Your task to perform on an android device: Add "corsair k70" to the cart on amazon.com, then select checkout. Image 0: 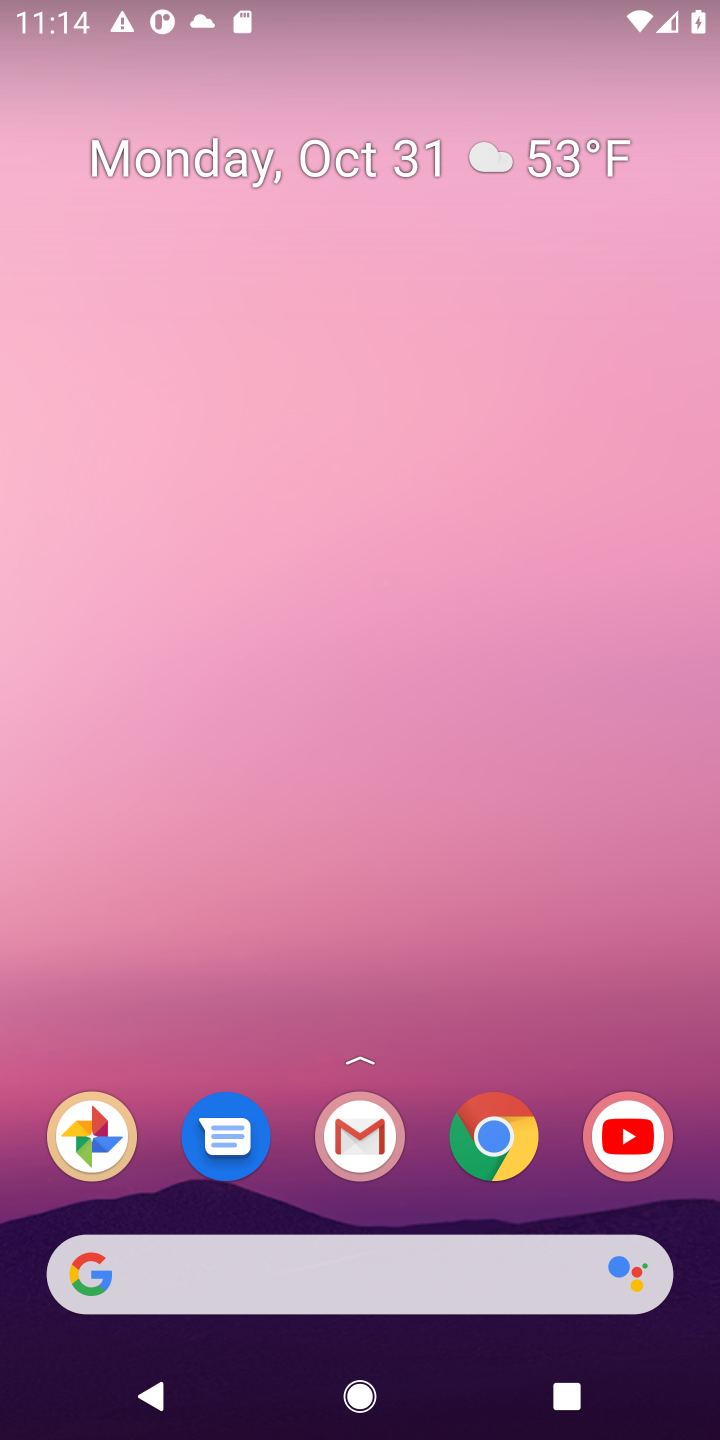
Step 0: press home button
Your task to perform on an android device: Add "corsair k70" to the cart on amazon.com, then select checkout. Image 1: 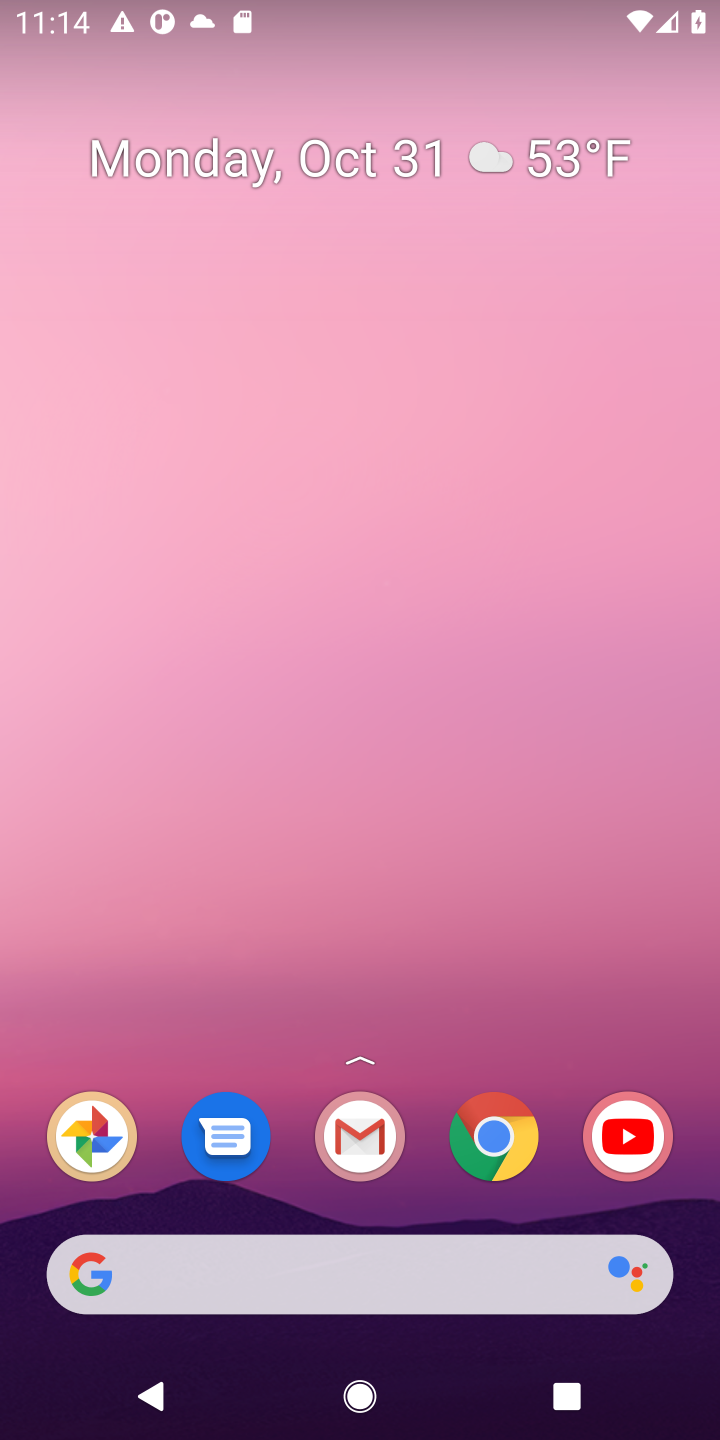
Step 1: click (144, 1263)
Your task to perform on an android device: Add "corsair k70" to the cart on amazon.com, then select checkout. Image 2: 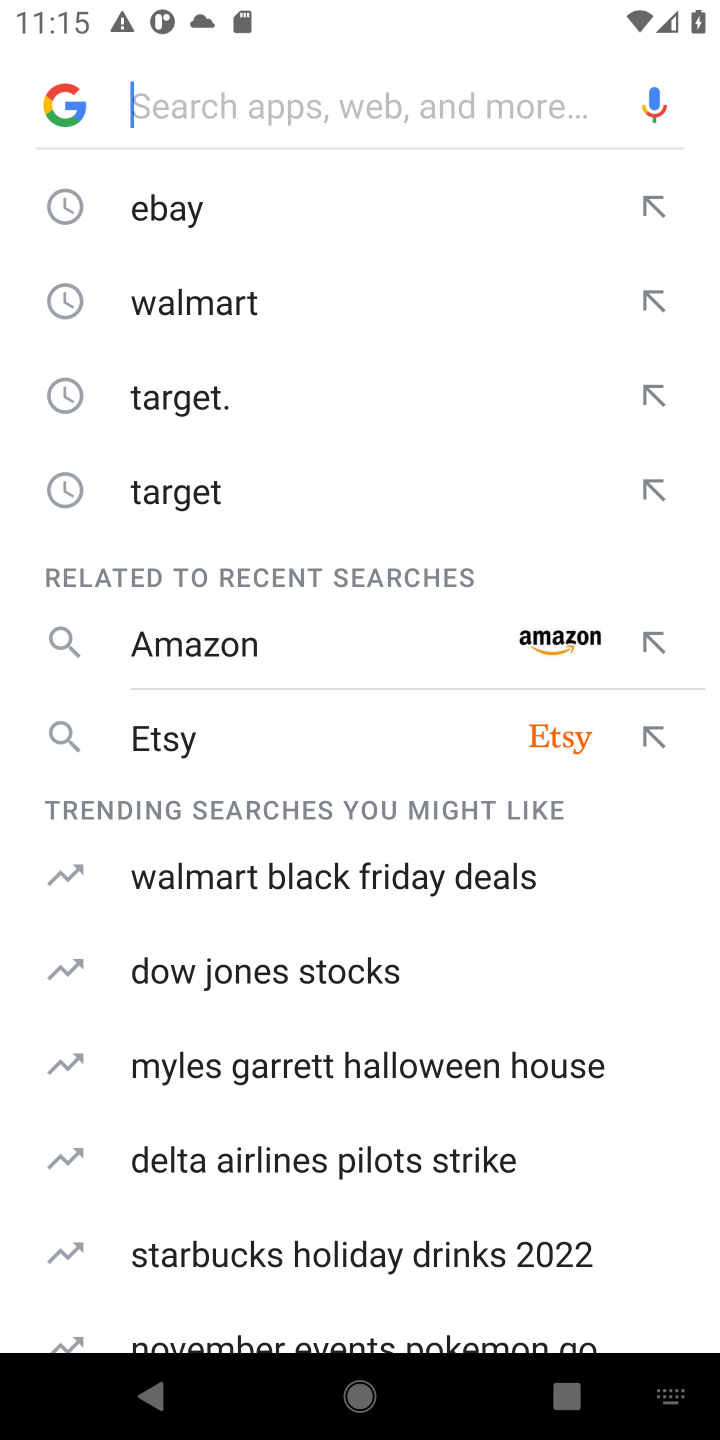
Step 2: type "amazon.com"
Your task to perform on an android device: Add "corsair k70" to the cart on amazon.com, then select checkout. Image 3: 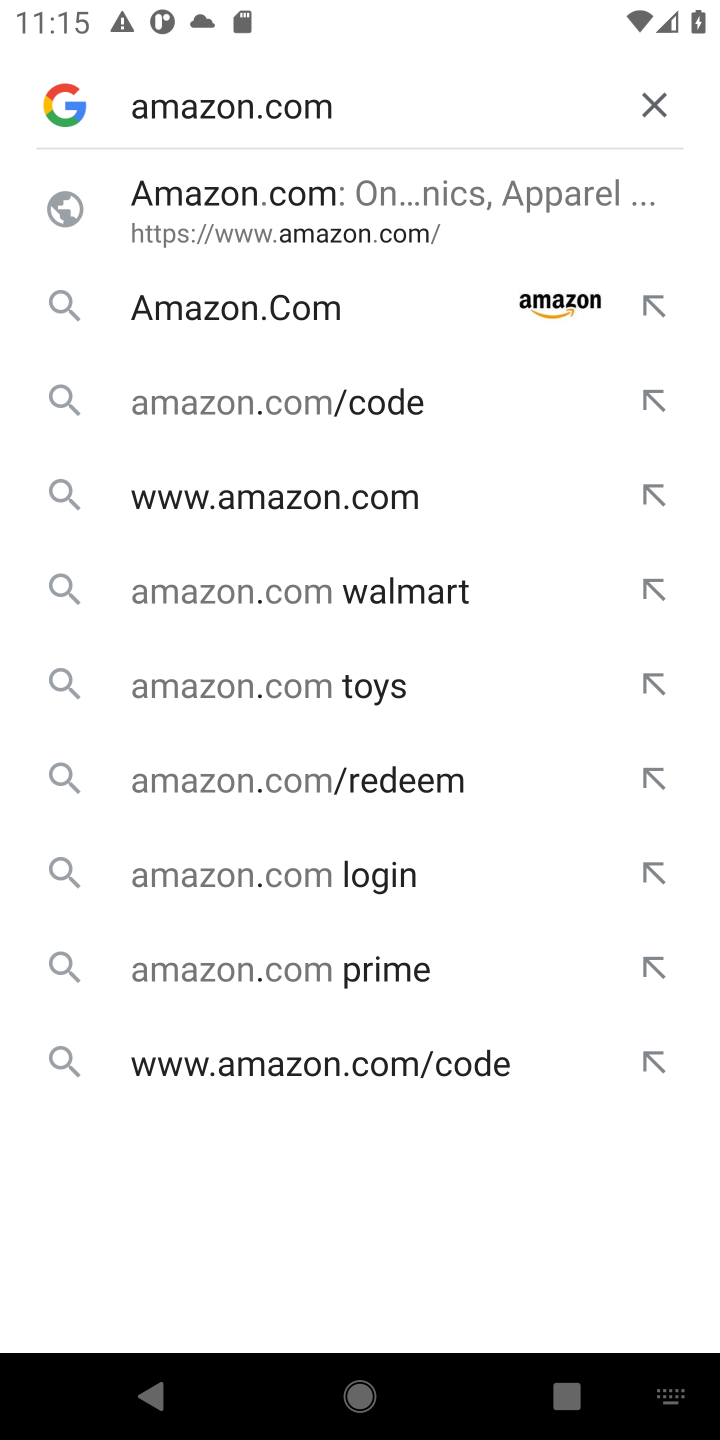
Step 3: press enter
Your task to perform on an android device: Add "corsair k70" to the cart on amazon.com, then select checkout. Image 4: 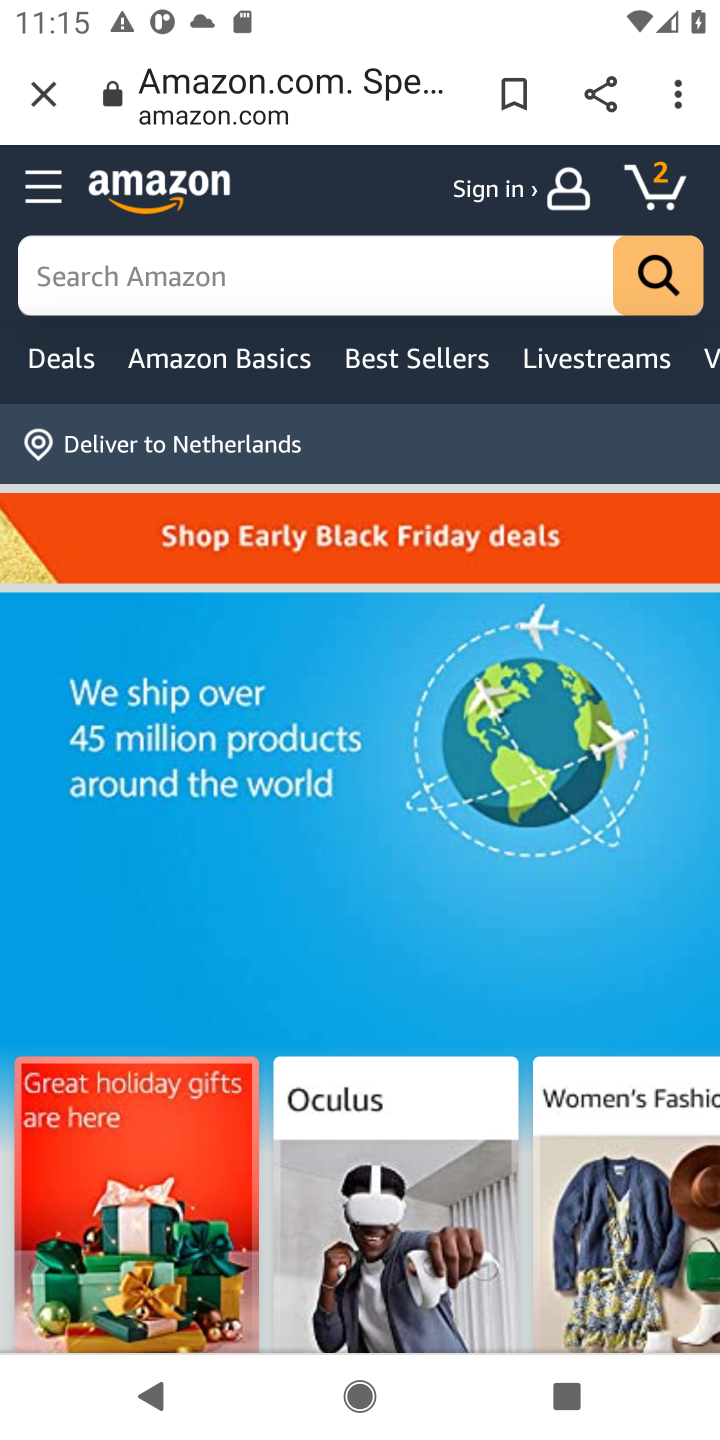
Step 4: click (146, 270)
Your task to perform on an android device: Add "corsair k70" to the cart on amazon.com, then select checkout. Image 5: 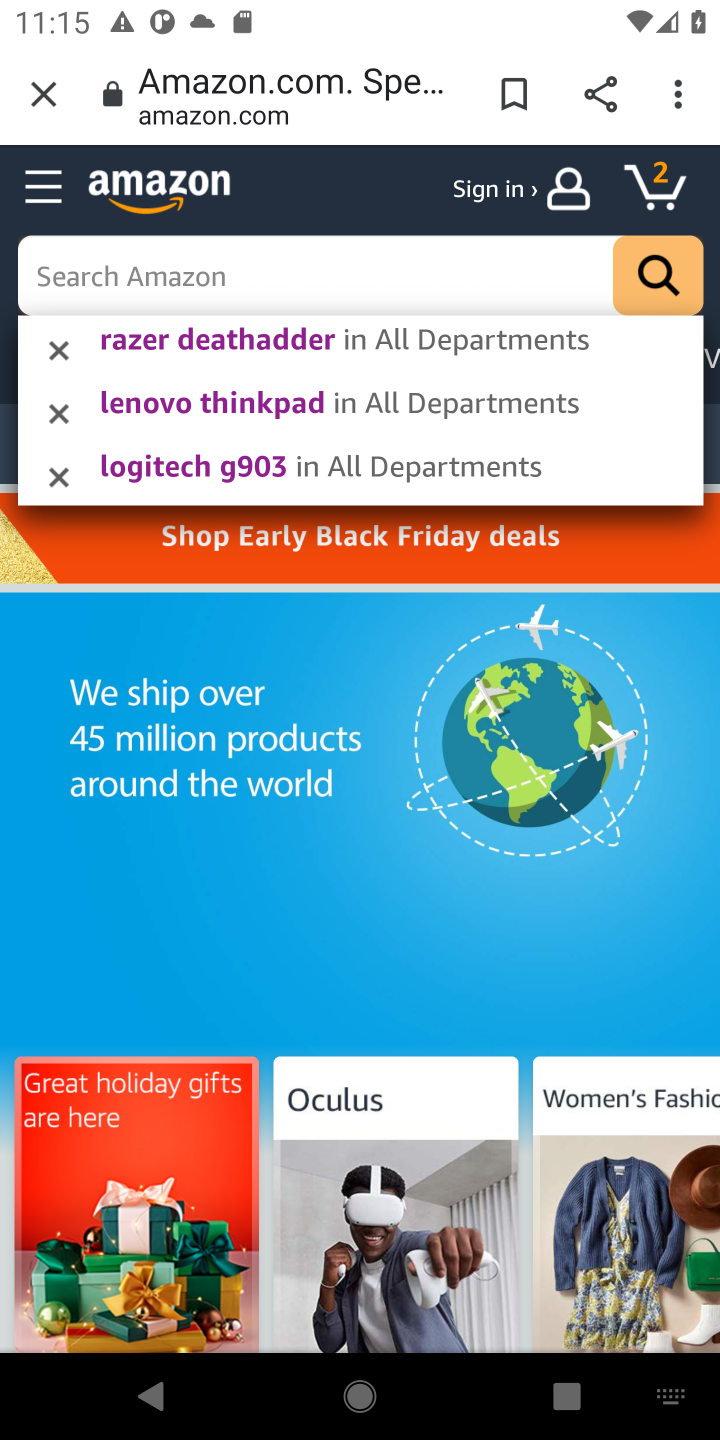
Step 5: type "corsair k70"
Your task to perform on an android device: Add "corsair k70" to the cart on amazon.com, then select checkout. Image 6: 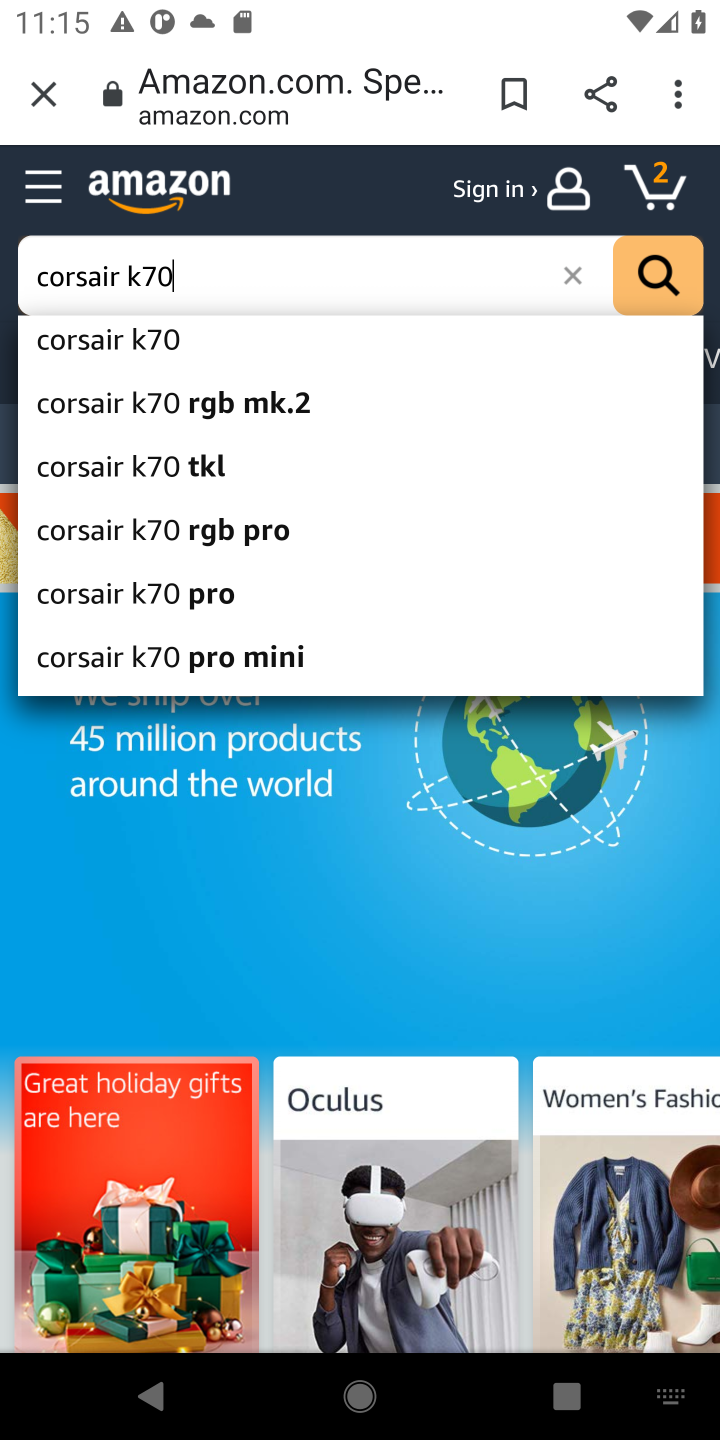
Step 6: click (665, 265)
Your task to perform on an android device: Add "corsair k70" to the cart on amazon.com, then select checkout. Image 7: 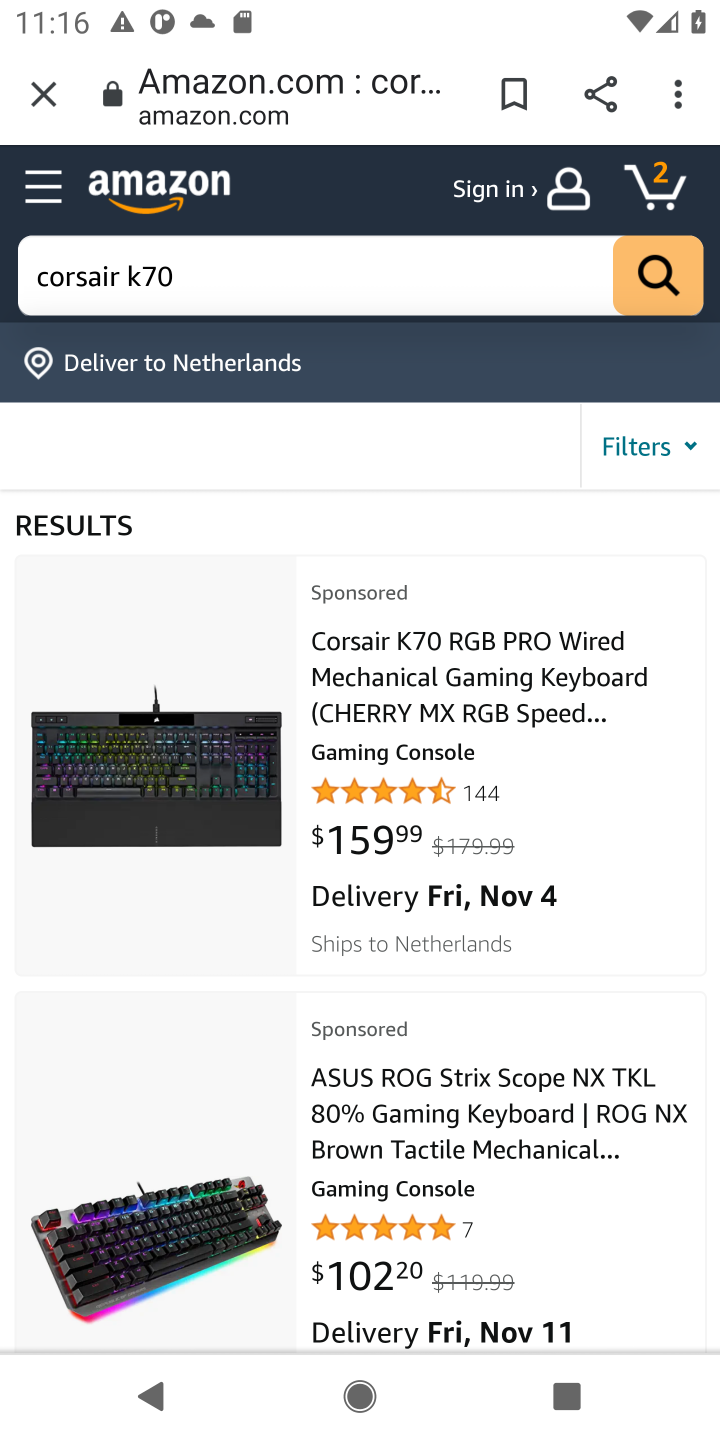
Step 7: click (432, 678)
Your task to perform on an android device: Add "corsair k70" to the cart on amazon.com, then select checkout. Image 8: 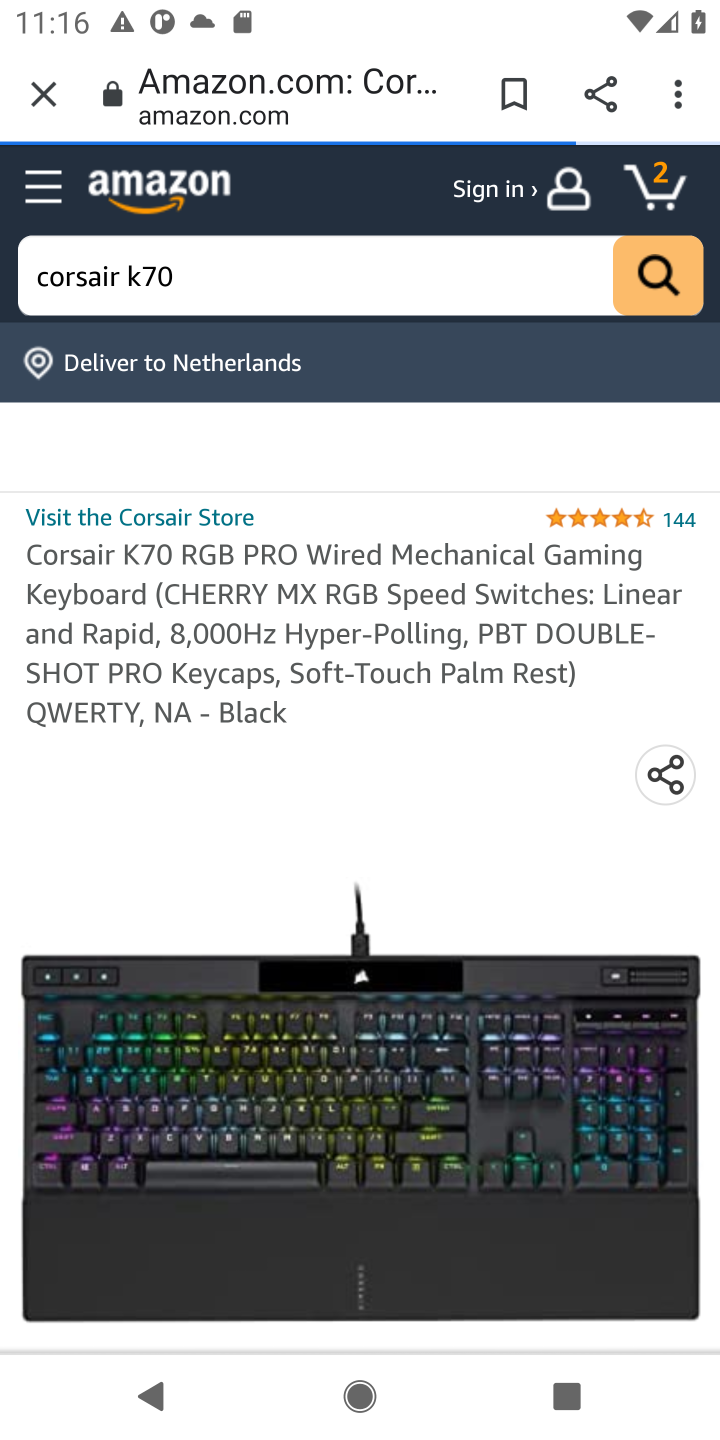
Step 8: drag from (491, 1060) to (514, 569)
Your task to perform on an android device: Add "corsair k70" to the cart on amazon.com, then select checkout. Image 9: 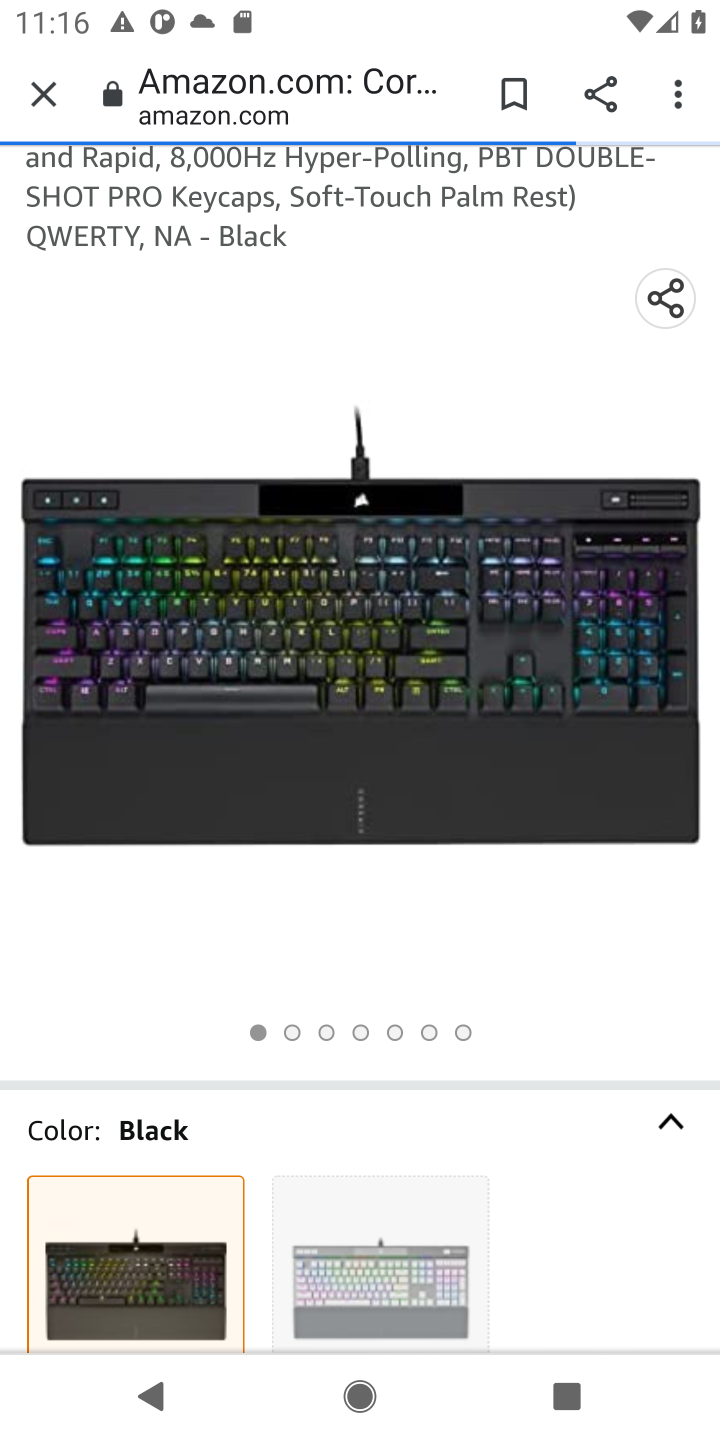
Step 9: drag from (482, 1134) to (482, 412)
Your task to perform on an android device: Add "corsair k70" to the cart on amazon.com, then select checkout. Image 10: 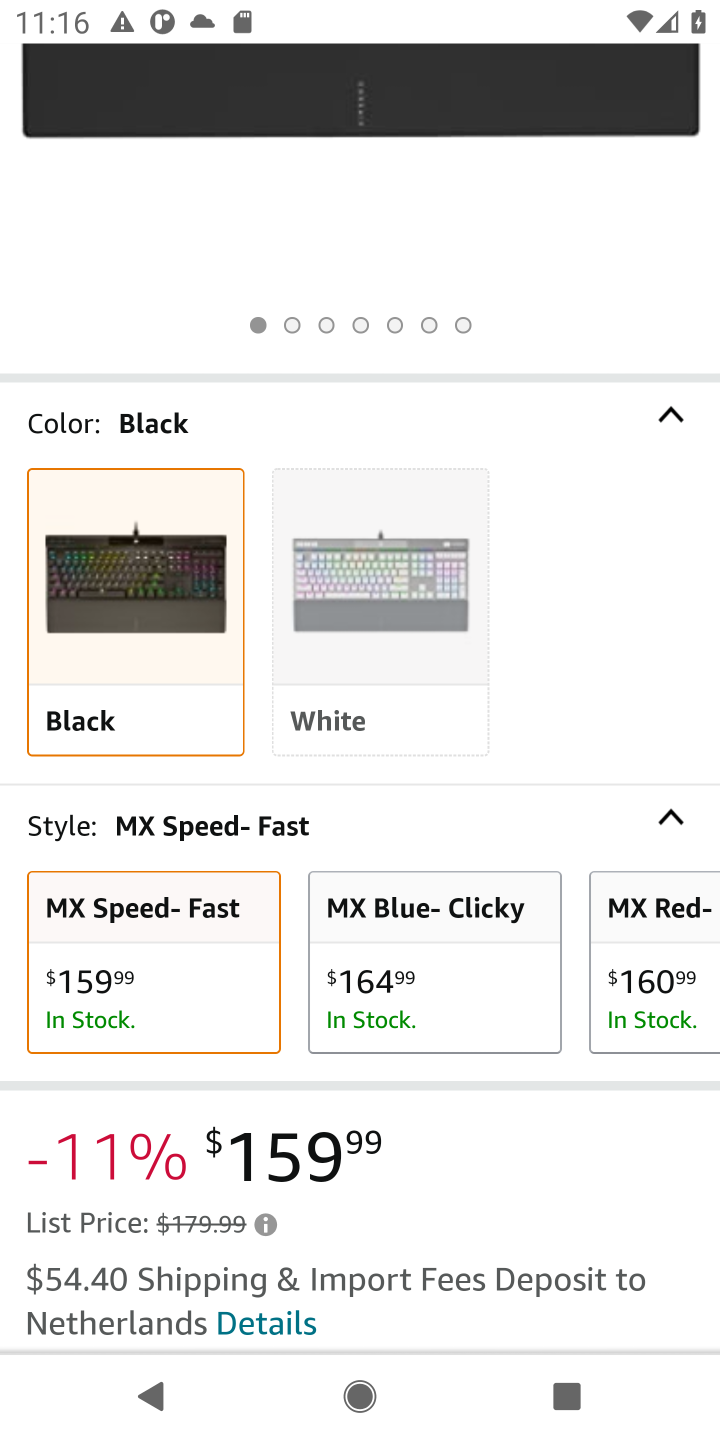
Step 10: drag from (423, 1142) to (468, 445)
Your task to perform on an android device: Add "corsair k70" to the cart on amazon.com, then select checkout. Image 11: 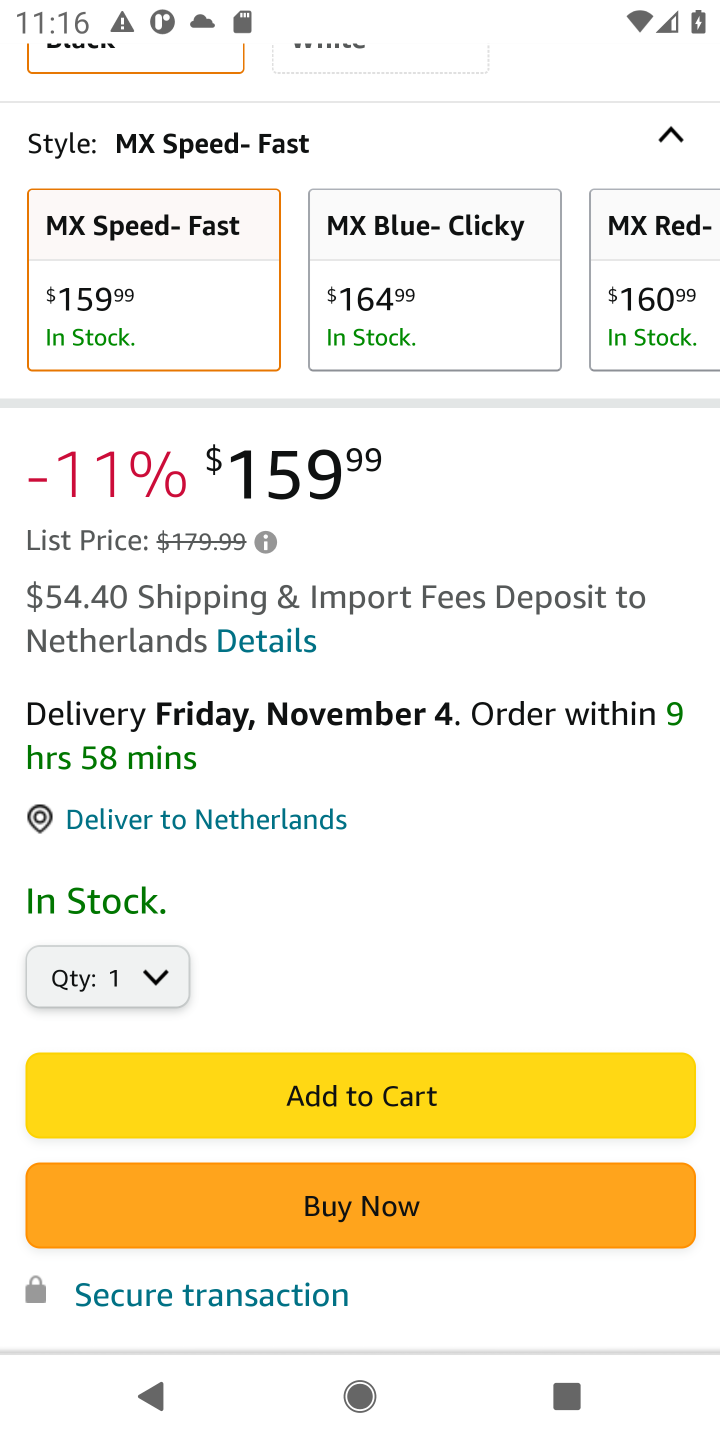
Step 11: drag from (491, 866) to (514, 293)
Your task to perform on an android device: Add "corsair k70" to the cart on amazon.com, then select checkout. Image 12: 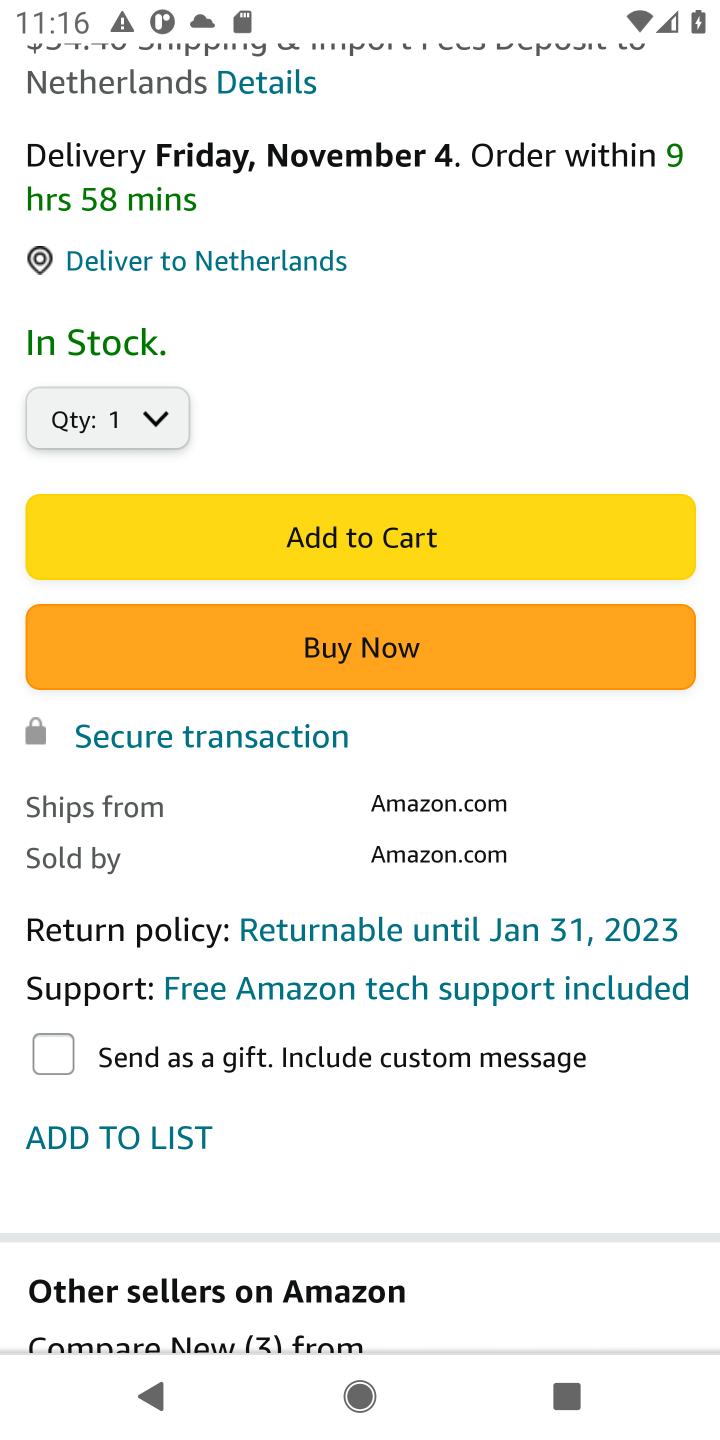
Step 12: click (320, 543)
Your task to perform on an android device: Add "corsair k70" to the cart on amazon.com, then select checkout. Image 13: 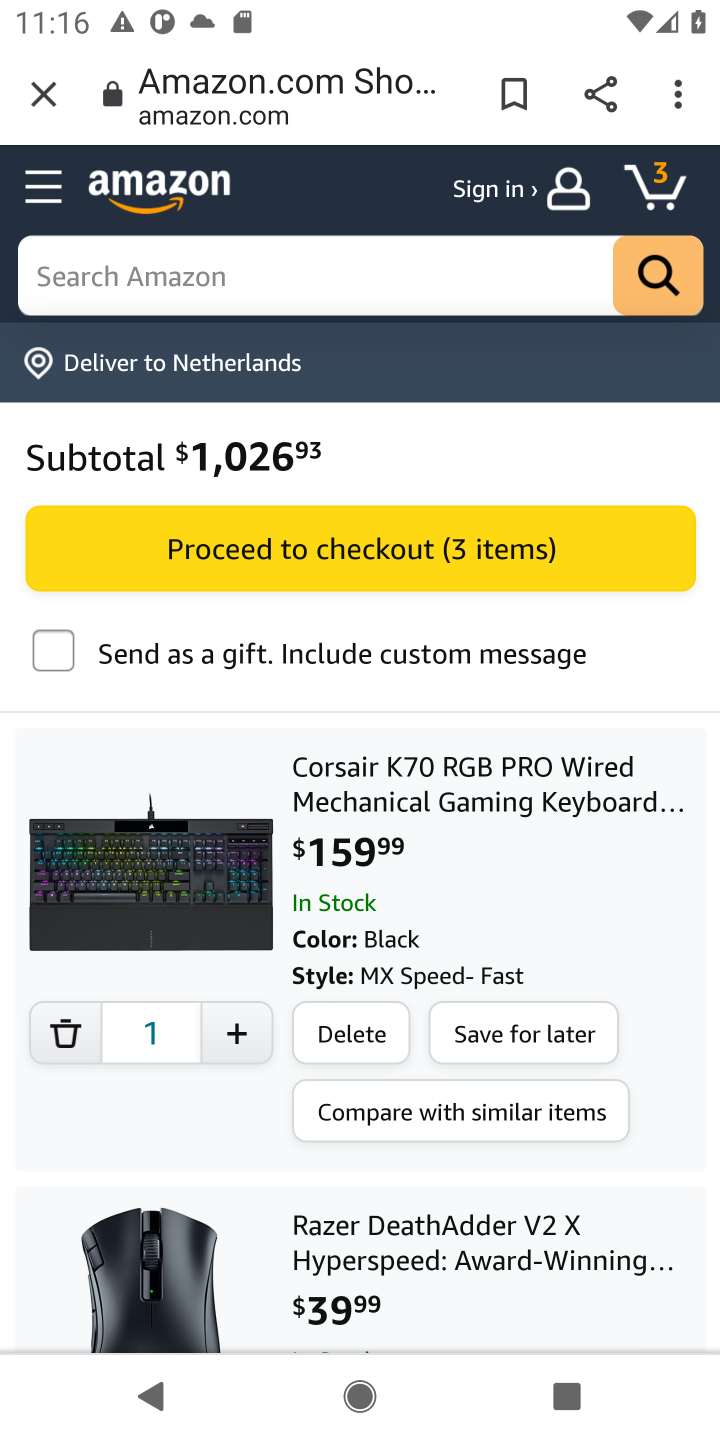
Step 13: click (397, 527)
Your task to perform on an android device: Add "corsair k70" to the cart on amazon.com, then select checkout. Image 14: 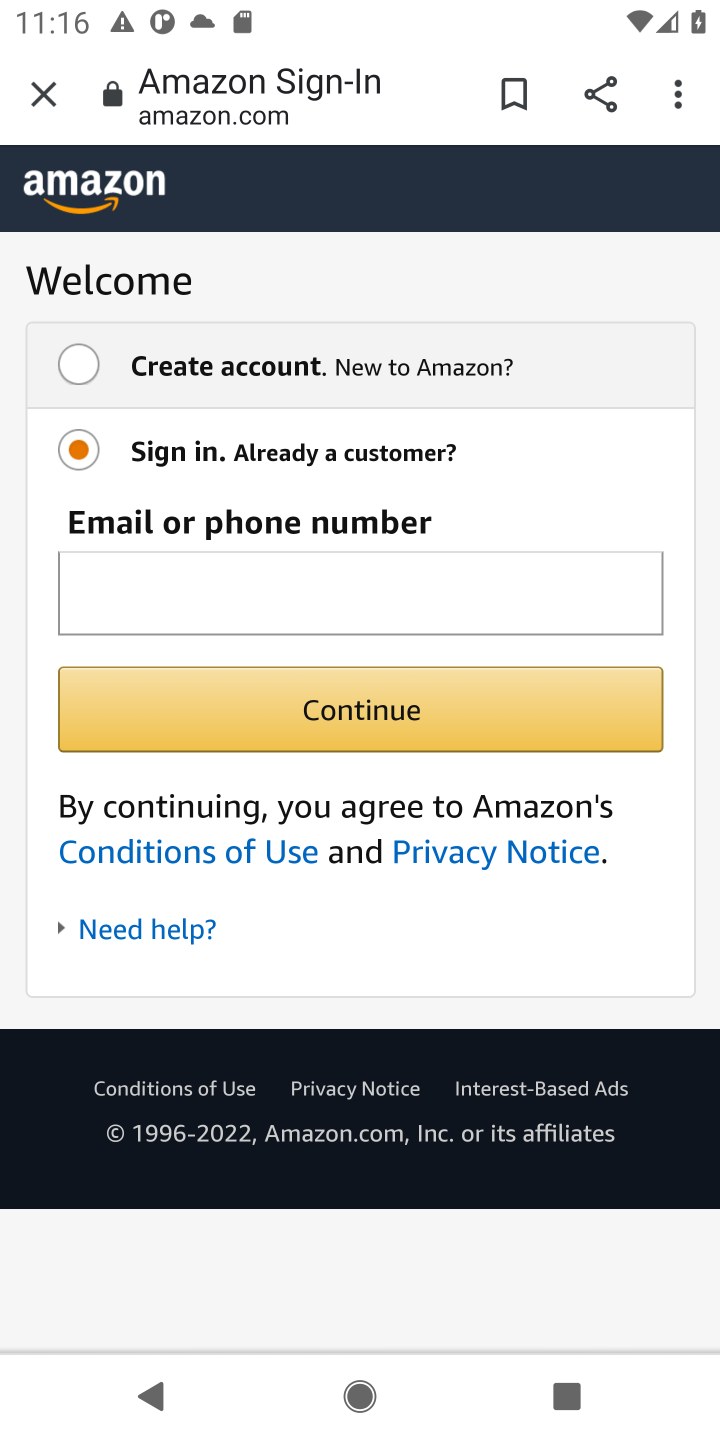
Step 14: task complete